Your task to perform on an android device: Open Google Chrome and open the bookmarks view Image 0: 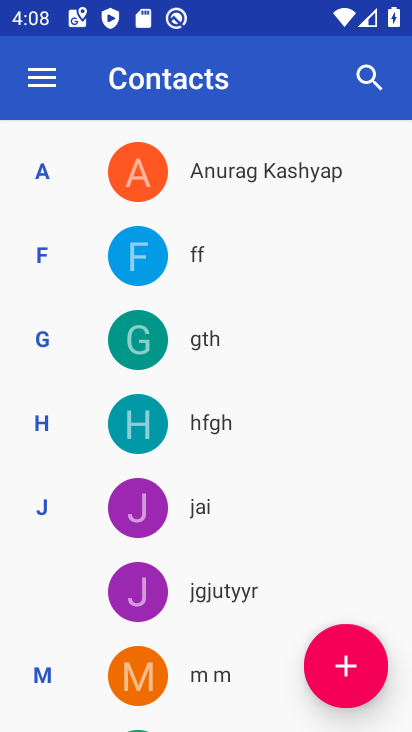
Step 0: press back button
Your task to perform on an android device: Open Google Chrome and open the bookmarks view Image 1: 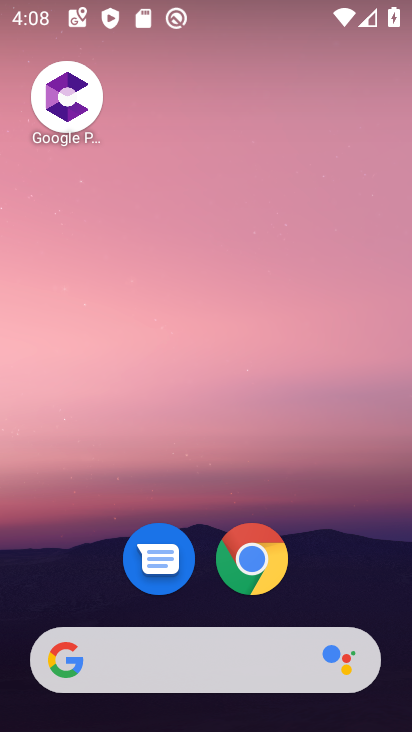
Step 1: click (239, 557)
Your task to perform on an android device: Open Google Chrome and open the bookmarks view Image 2: 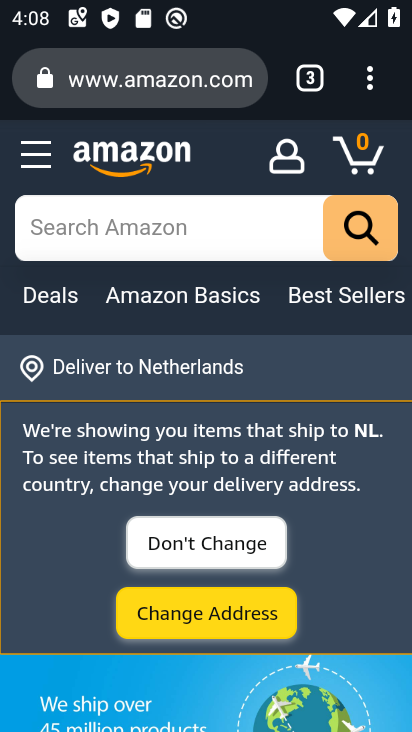
Step 2: task complete